Your task to perform on an android device: turn on bluetooth scan Image 0: 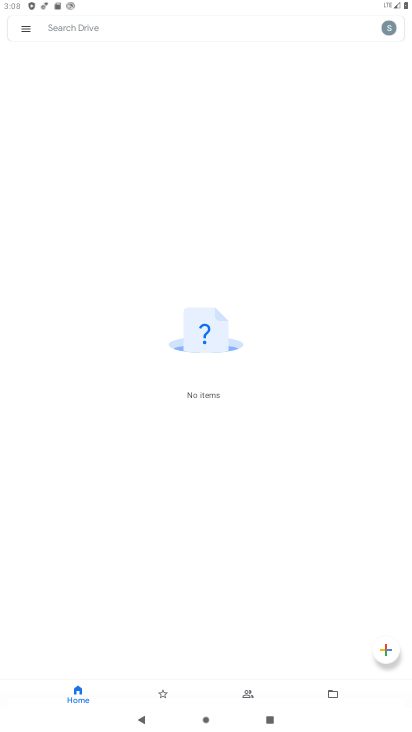
Step 0: press home button
Your task to perform on an android device: turn on bluetooth scan Image 1: 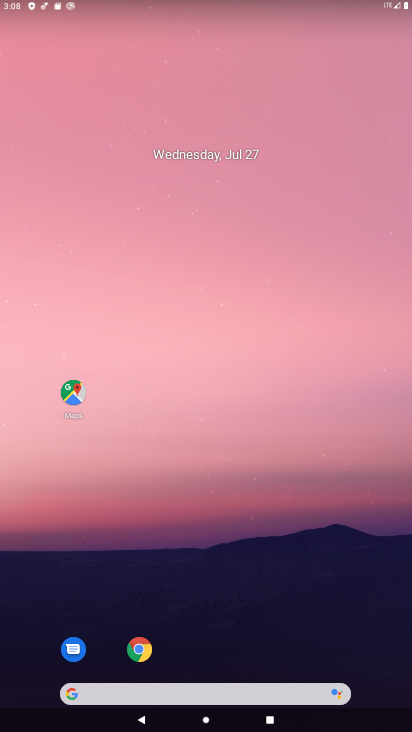
Step 1: drag from (263, 613) to (270, 89)
Your task to perform on an android device: turn on bluetooth scan Image 2: 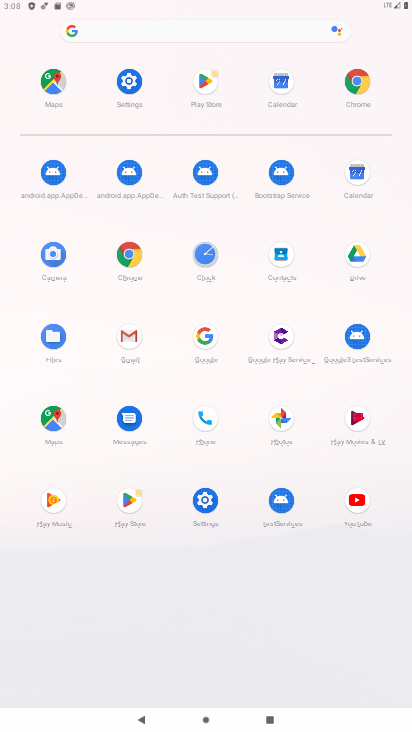
Step 2: click (207, 490)
Your task to perform on an android device: turn on bluetooth scan Image 3: 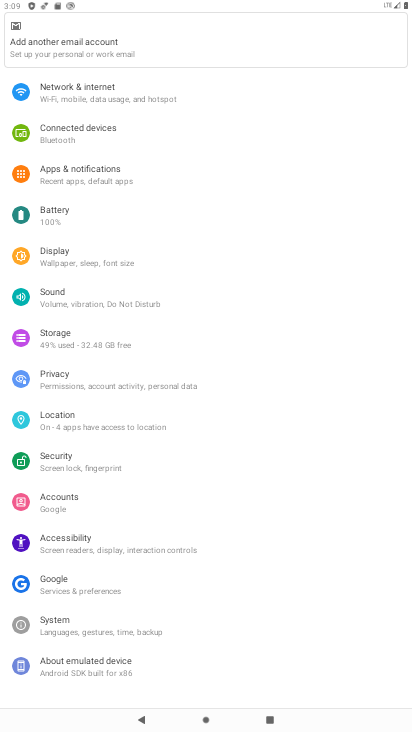
Step 3: click (54, 421)
Your task to perform on an android device: turn on bluetooth scan Image 4: 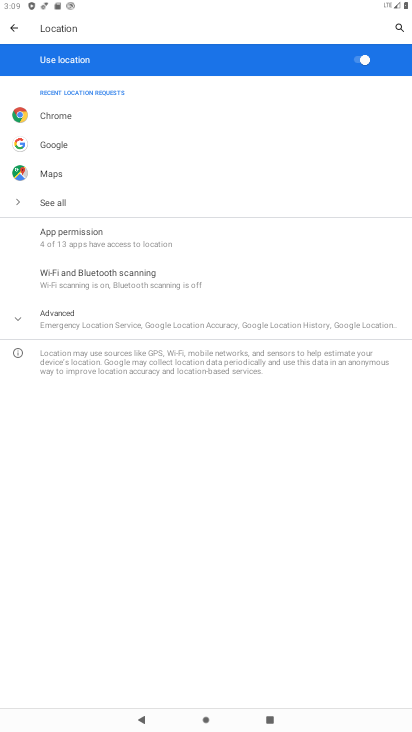
Step 4: click (129, 273)
Your task to perform on an android device: turn on bluetooth scan Image 5: 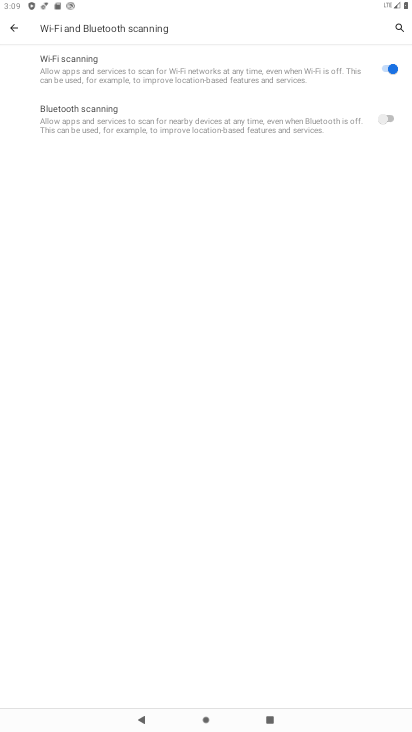
Step 5: click (339, 121)
Your task to perform on an android device: turn on bluetooth scan Image 6: 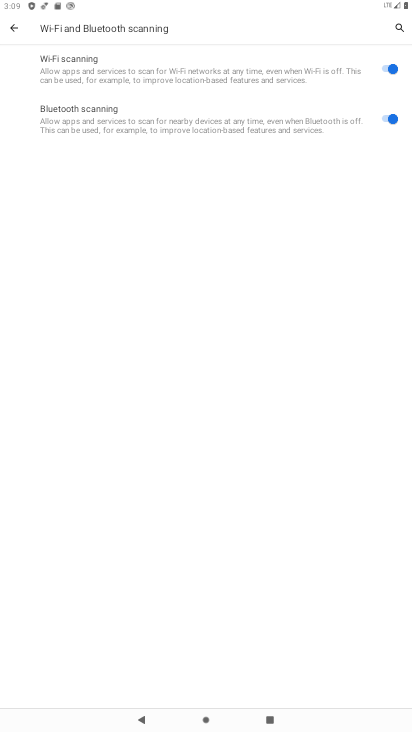
Step 6: task complete